Your task to perform on an android device: open app "PlayWell" Image 0: 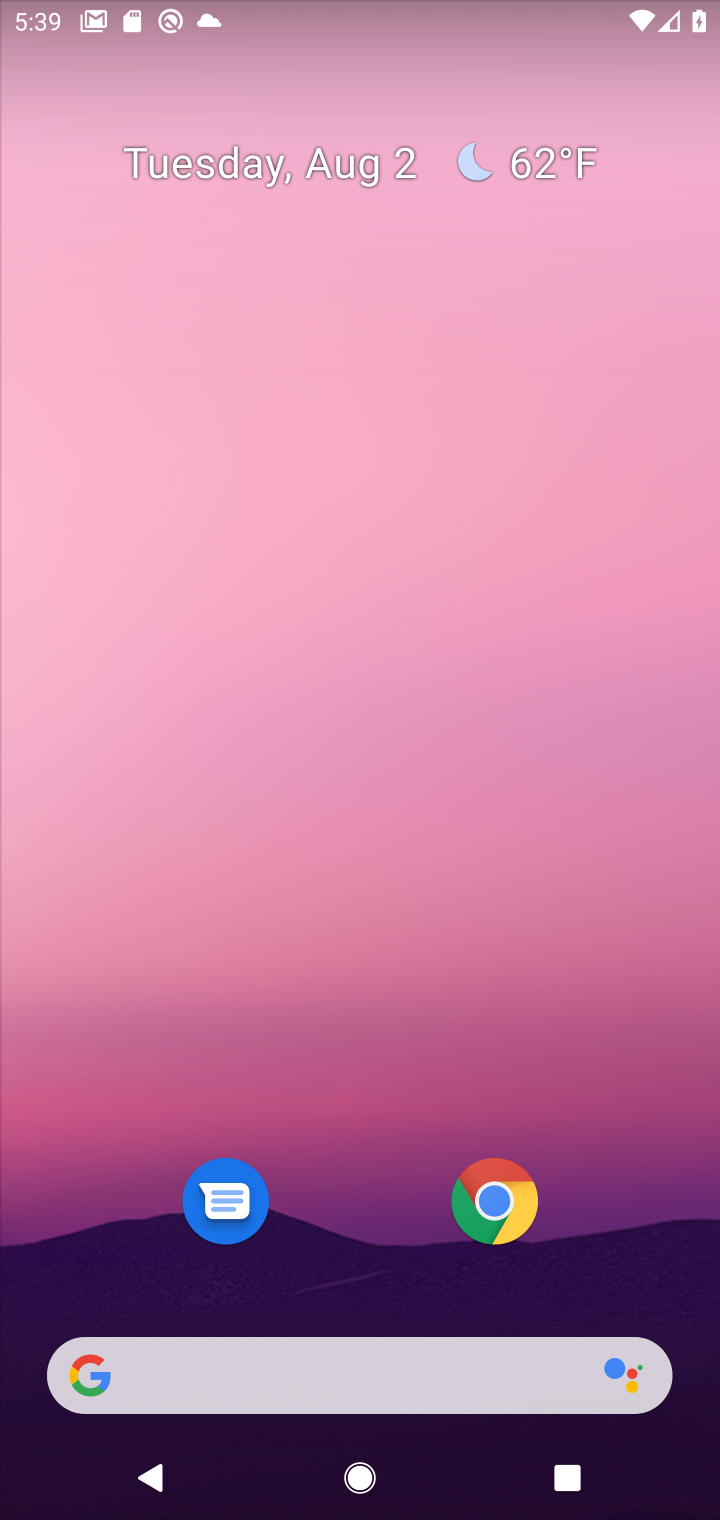
Step 0: drag from (417, 1245) to (519, 470)
Your task to perform on an android device: open app "PlayWell" Image 1: 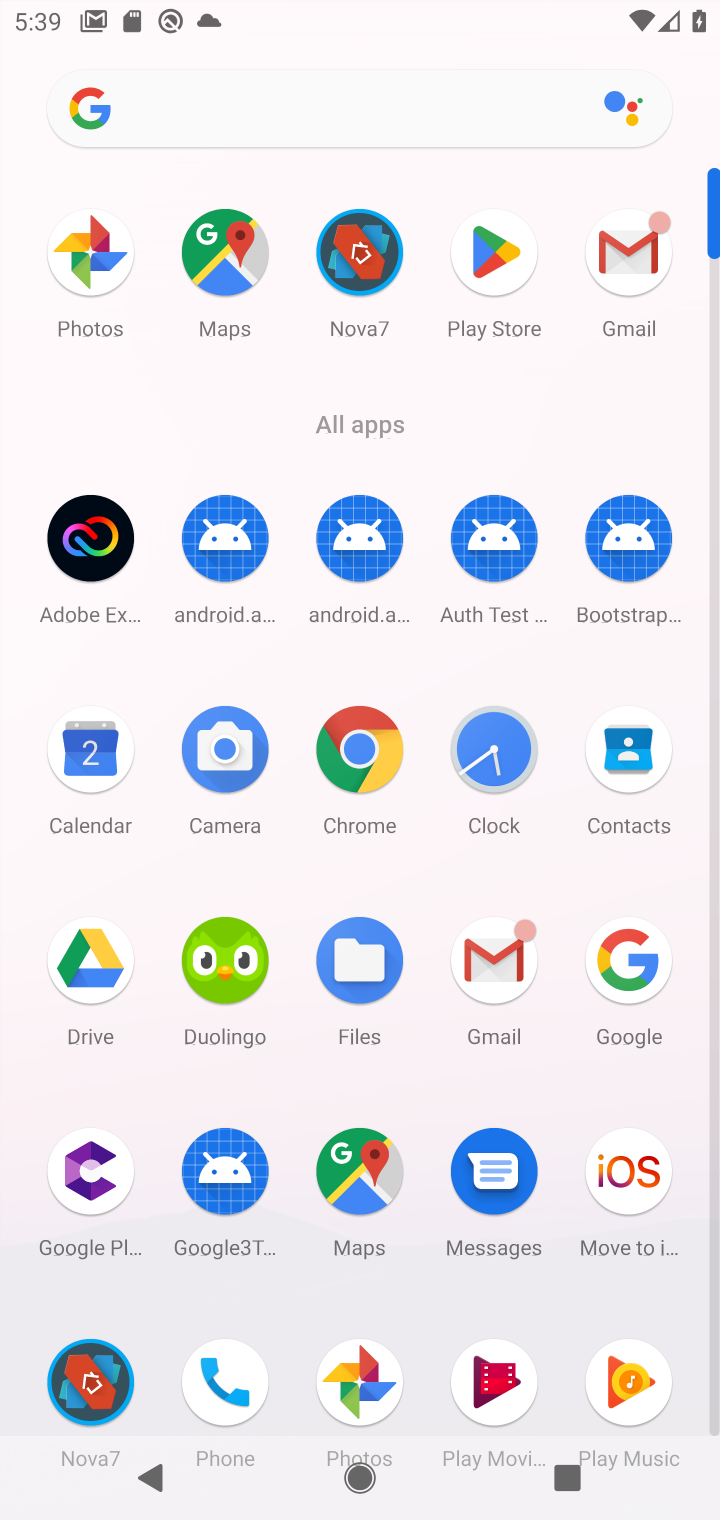
Step 1: click (493, 257)
Your task to perform on an android device: open app "PlayWell" Image 2: 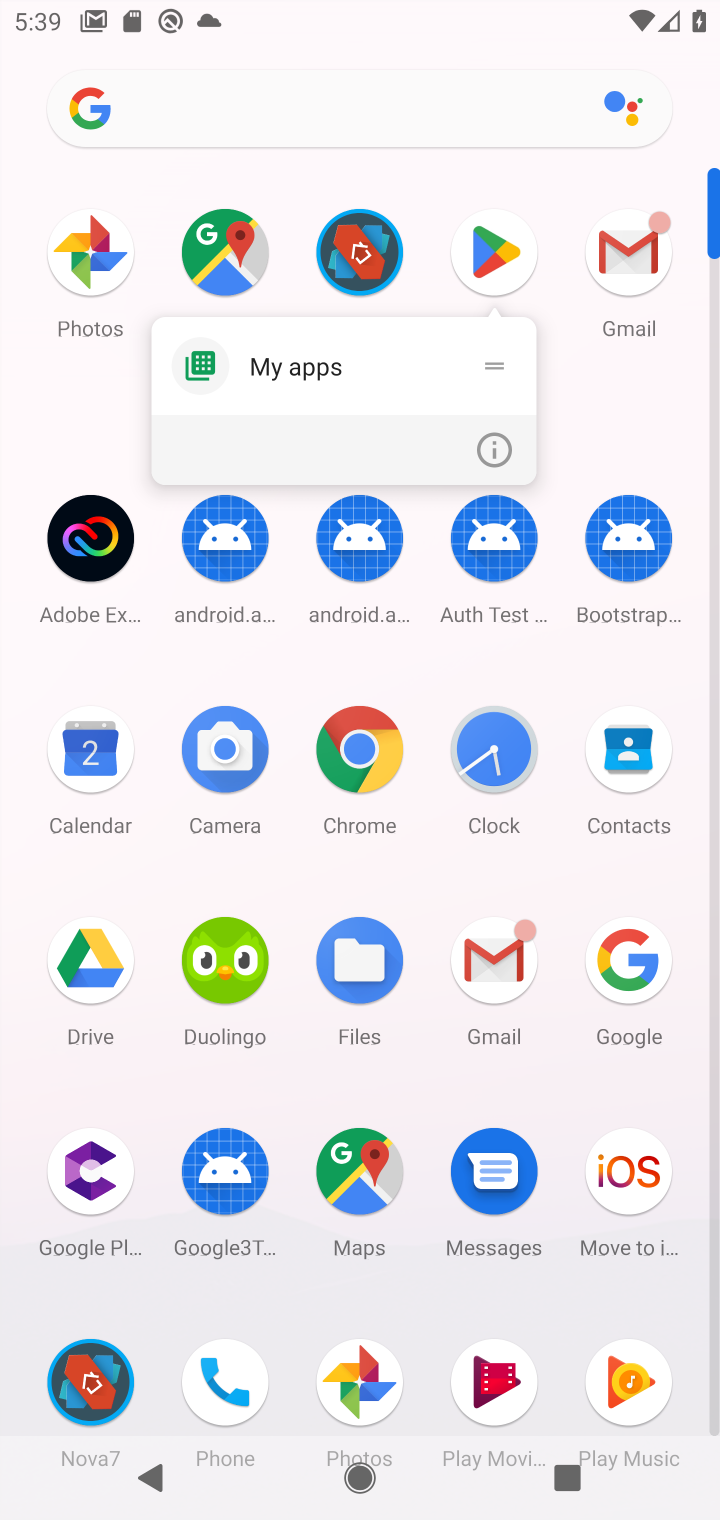
Step 2: click (493, 439)
Your task to perform on an android device: open app "PlayWell" Image 3: 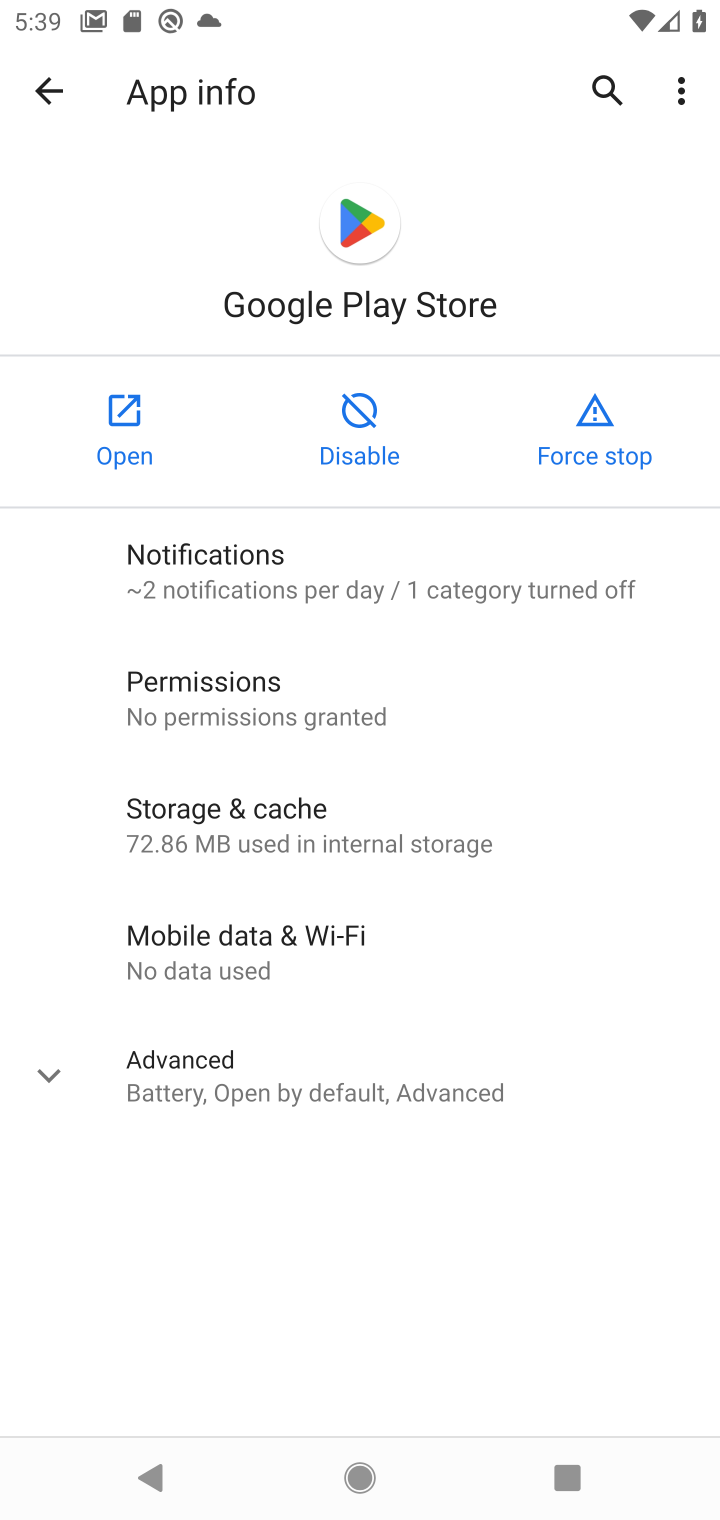
Step 3: click (114, 423)
Your task to perform on an android device: open app "PlayWell" Image 4: 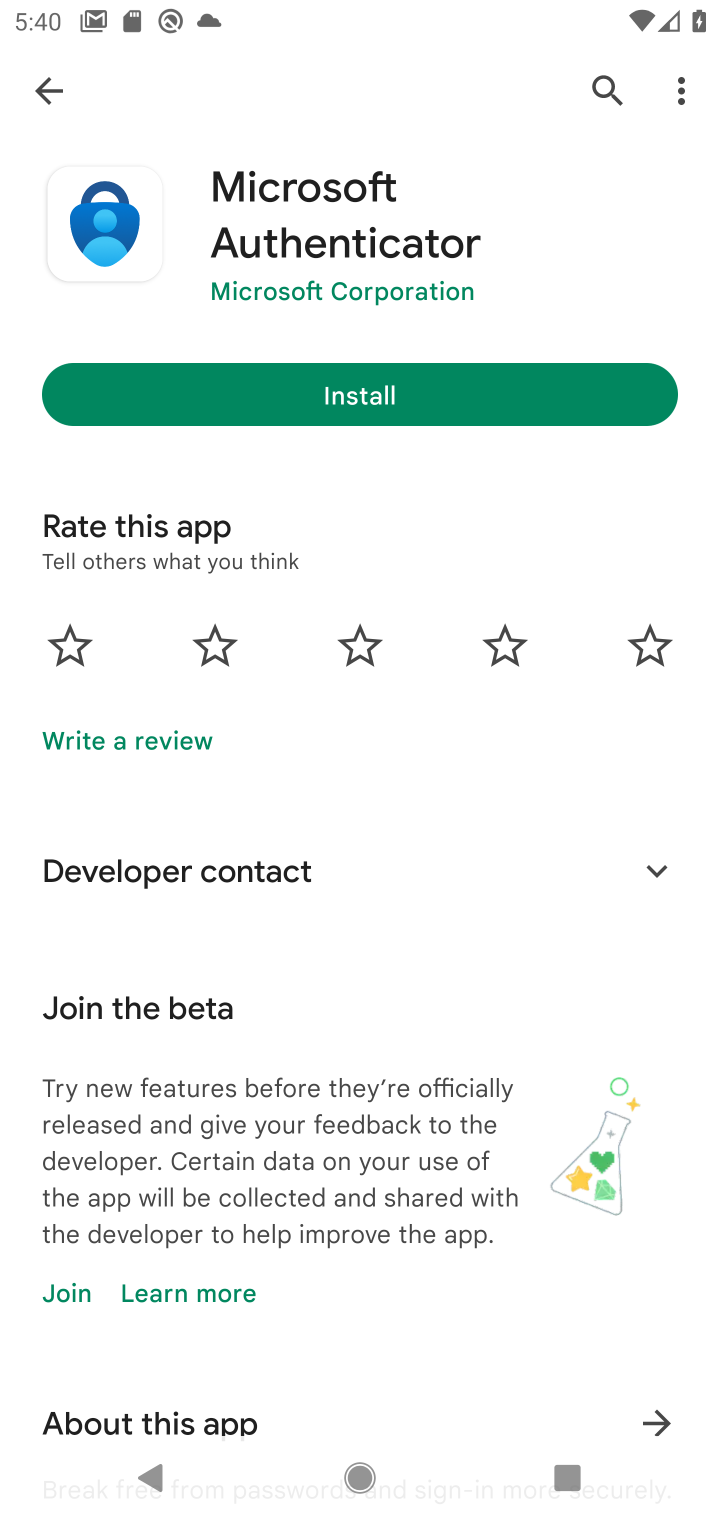
Step 4: drag from (360, 215) to (424, 1138)
Your task to perform on an android device: open app "PlayWell" Image 5: 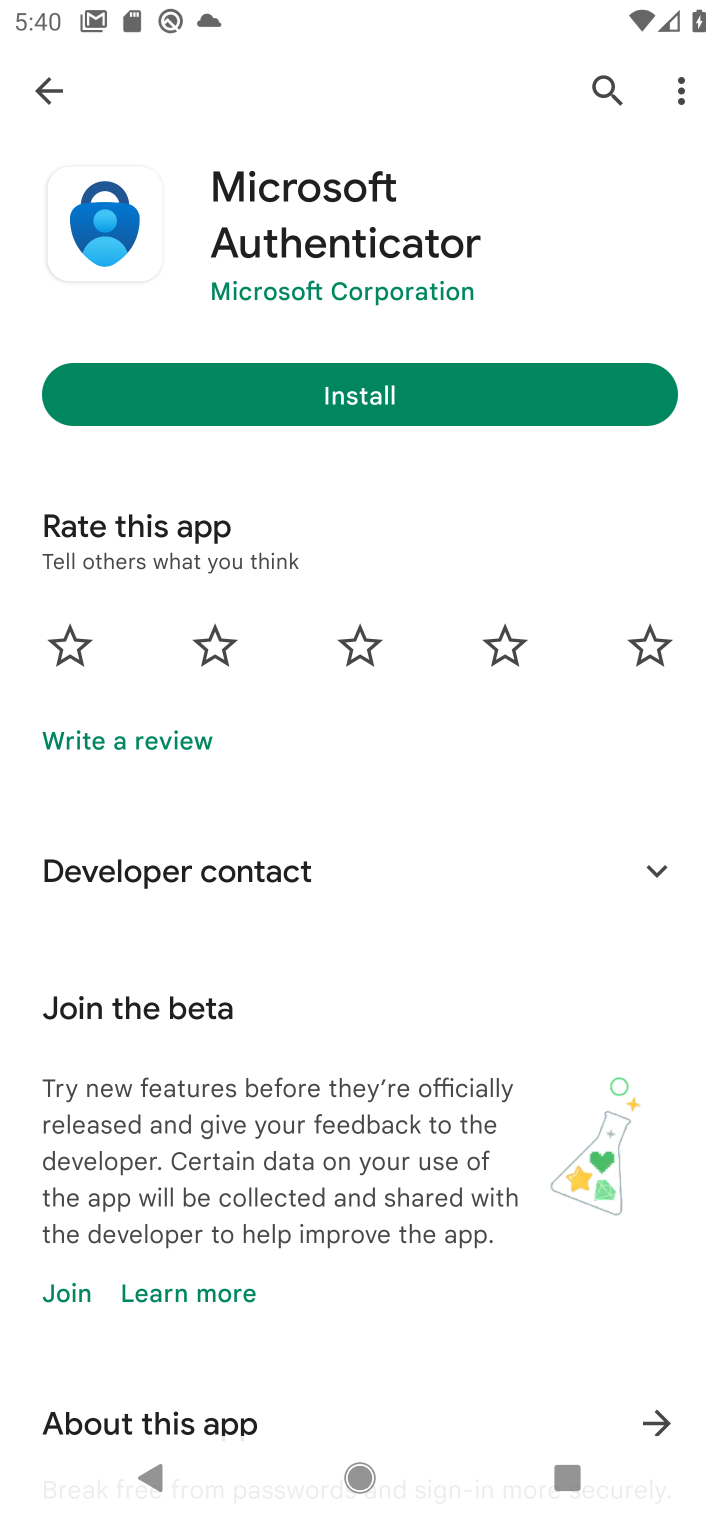
Step 5: click (607, 83)
Your task to perform on an android device: open app "PlayWell" Image 6: 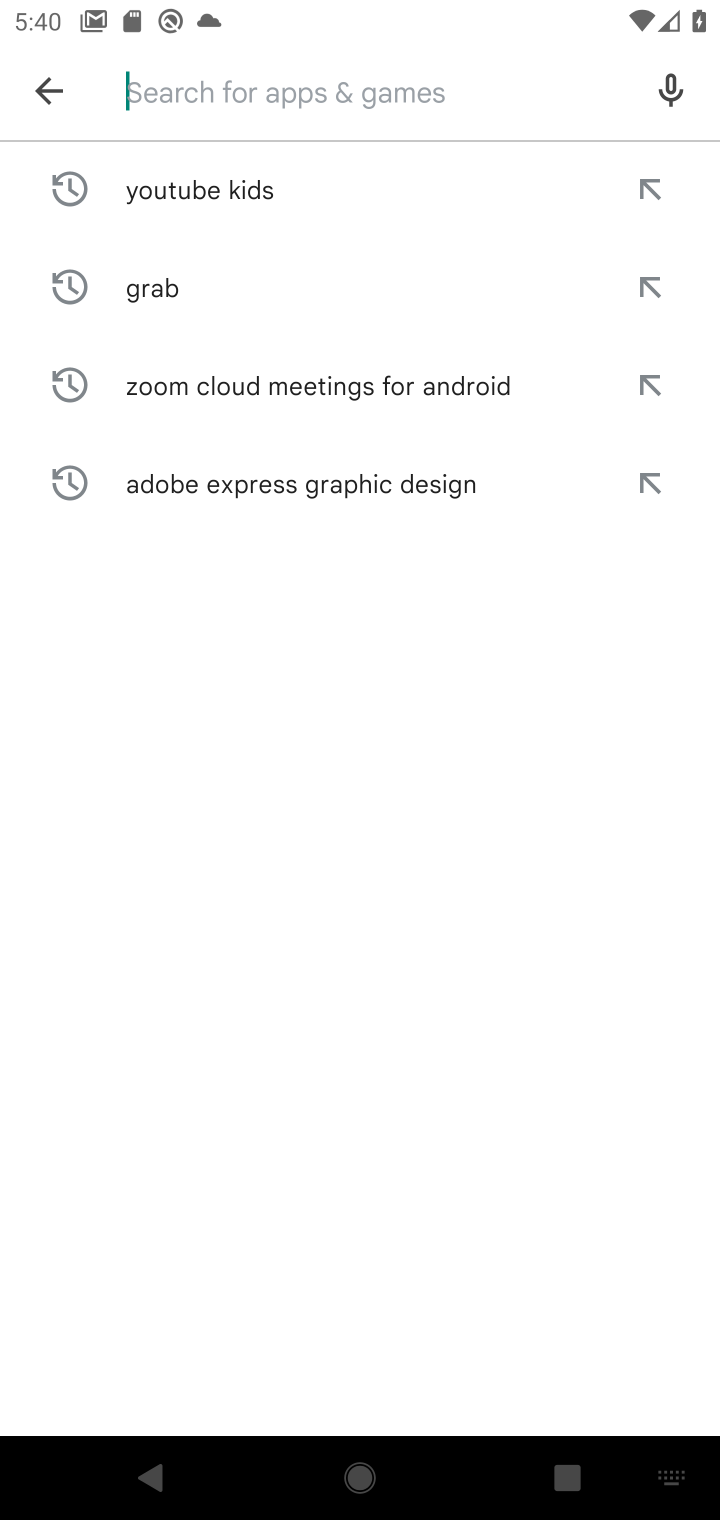
Step 6: type "PlayWell"
Your task to perform on an android device: open app "PlayWell" Image 7: 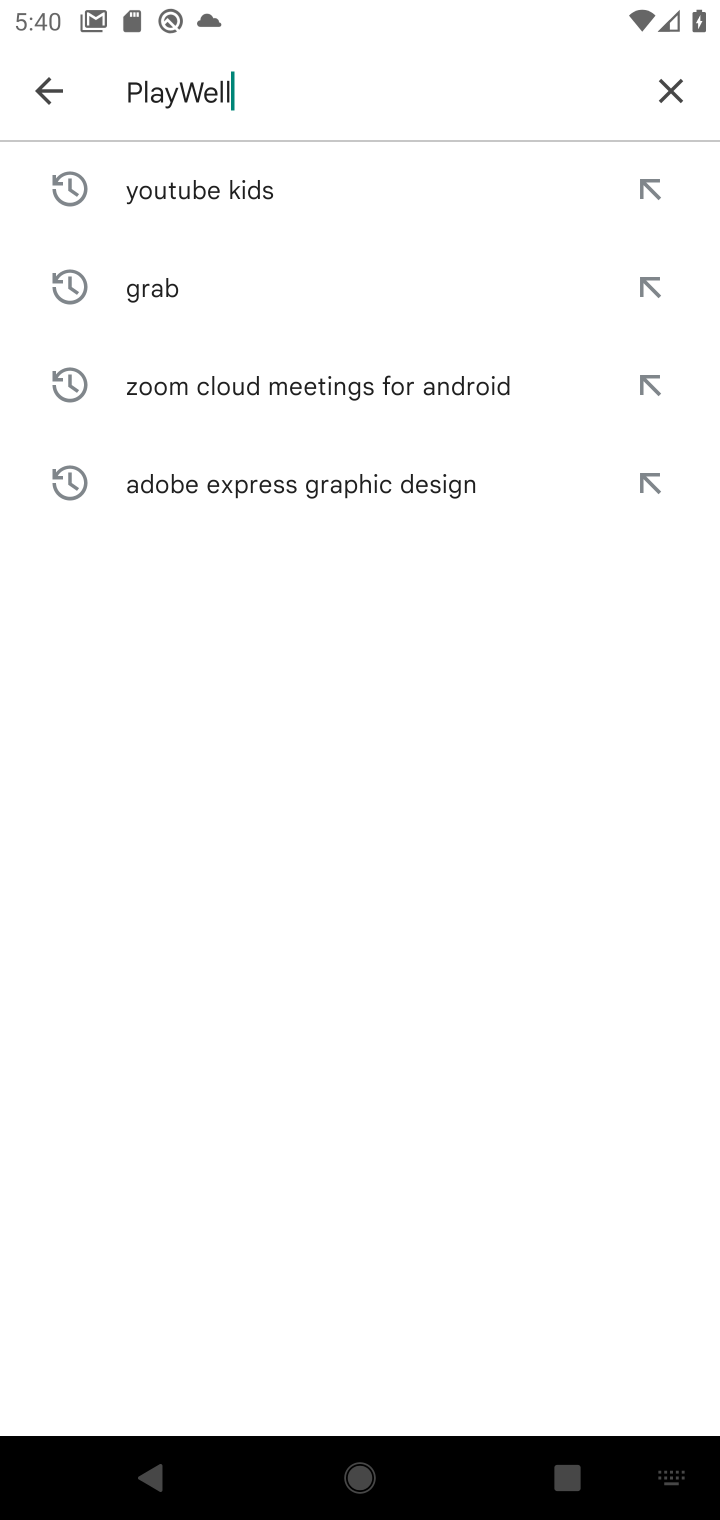
Step 7: type ""
Your task to perform on an android device: open app "PlayWell" Image 8: 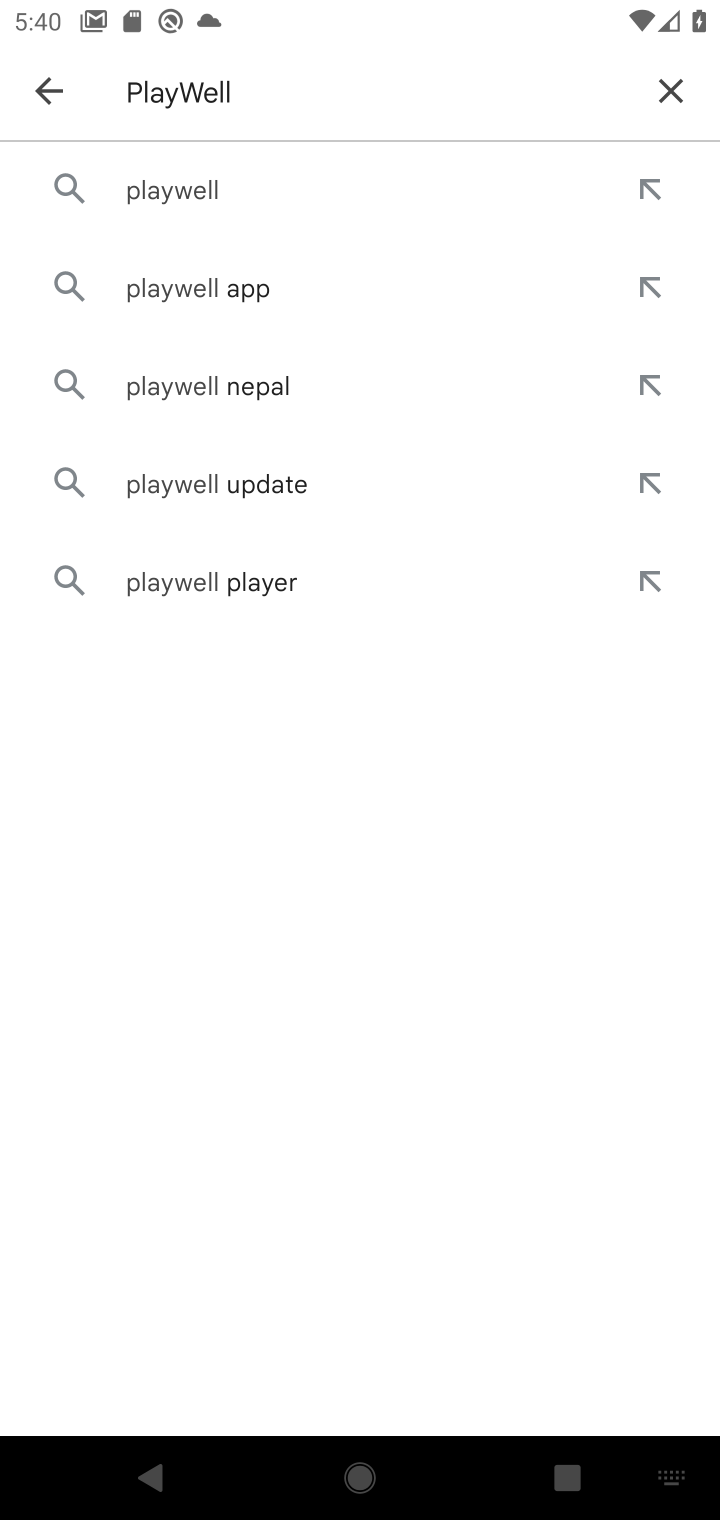
Step 8: click (212, 178)
Your task to perform on an android device: open app "PlayWell" Image 9: 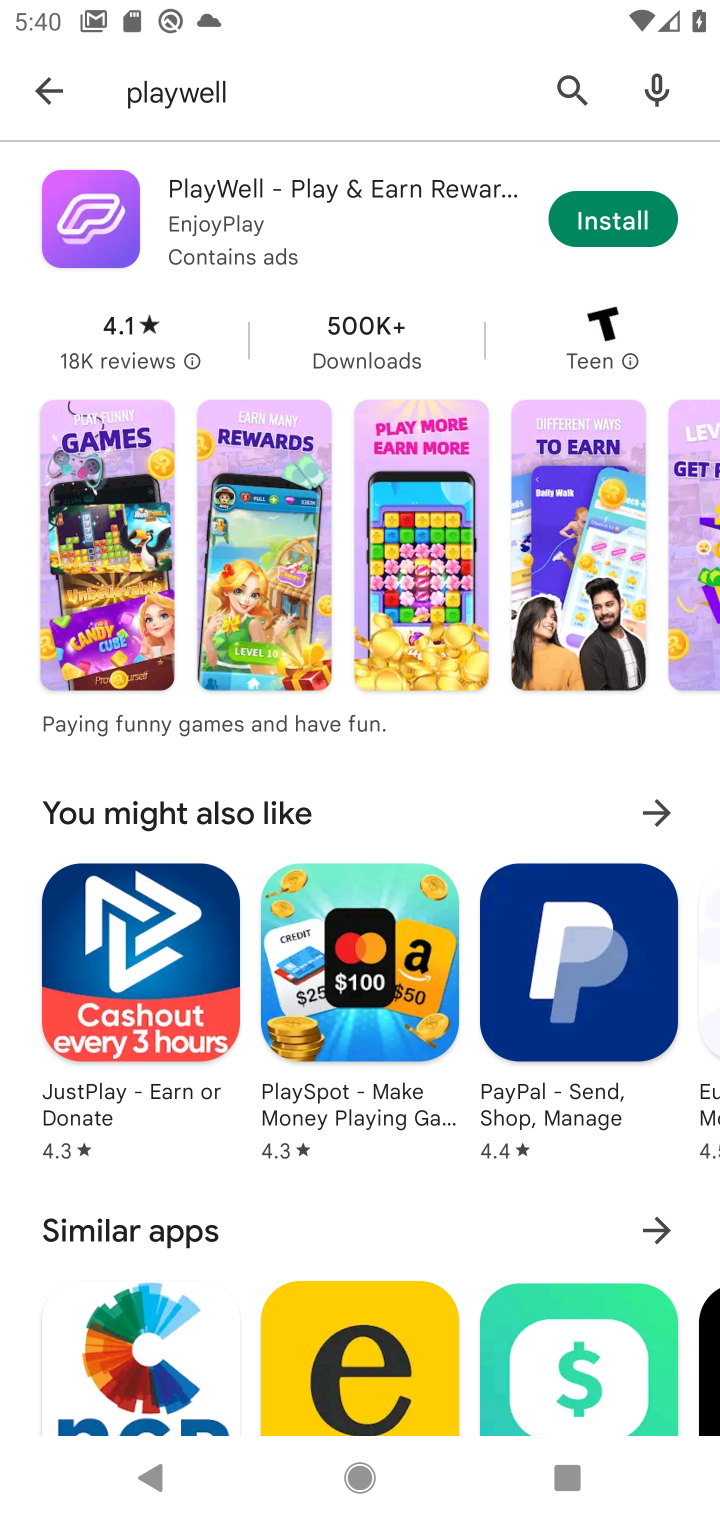
Step 9: click (225, 196)
Your task to perform on an android device: open app "PlayWell" Image 10: 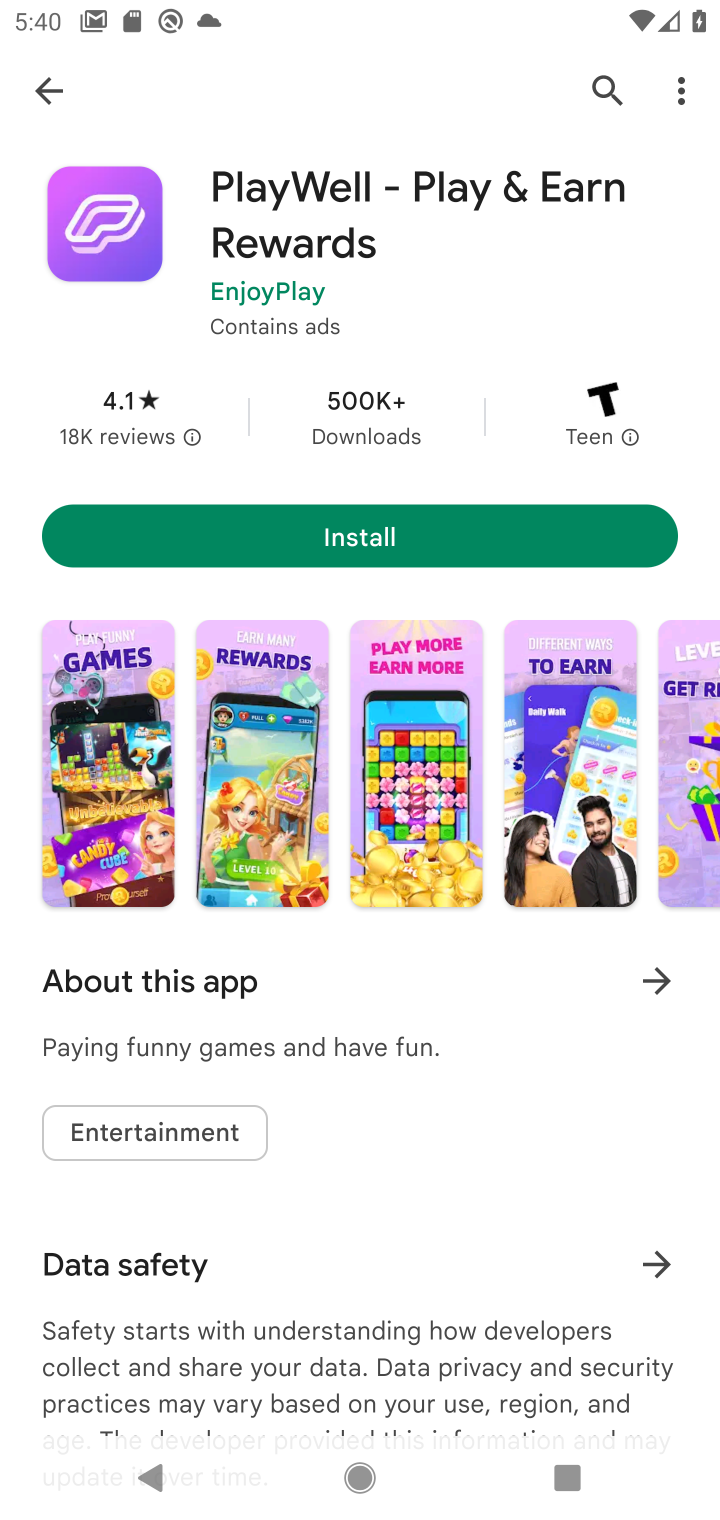
Step 10: task complete